Your task to perform on an android device: Go to accessibility settings Image 0: 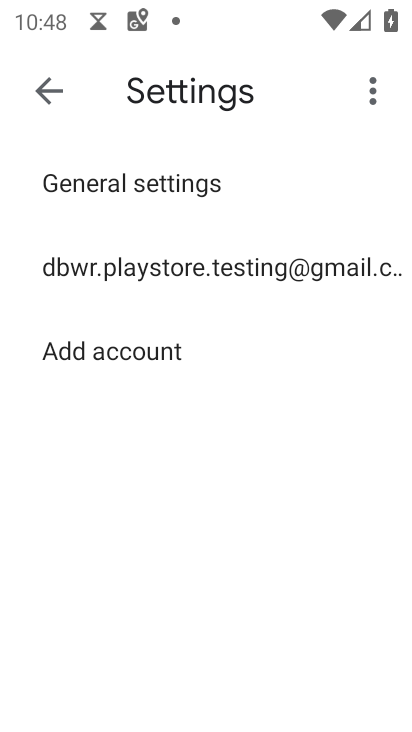
Step 0: press home button
Your task to perform on an android device: Go to accessibility settings Image 1: 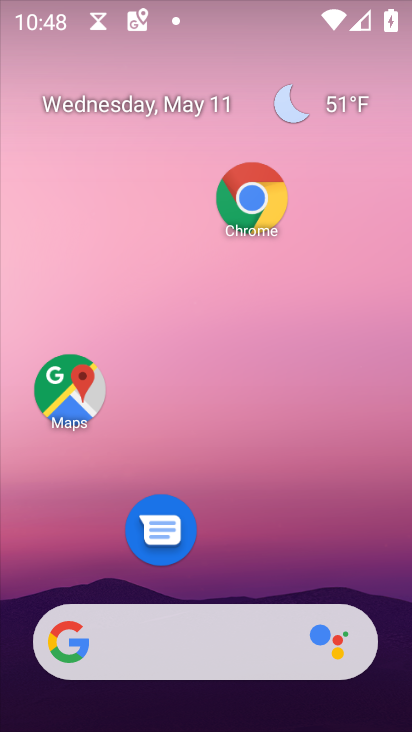
Step 1: drag from (275, 565) to (187, 116)
Your task to perform on an android device: Go to accessibility settings Image 2: 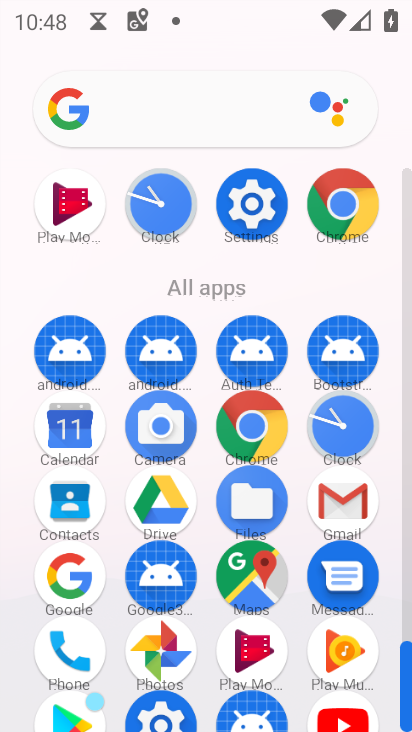
Step 2: click (257, 188)
Your task to perform on an android device: Go to accessibility settings Image 3: 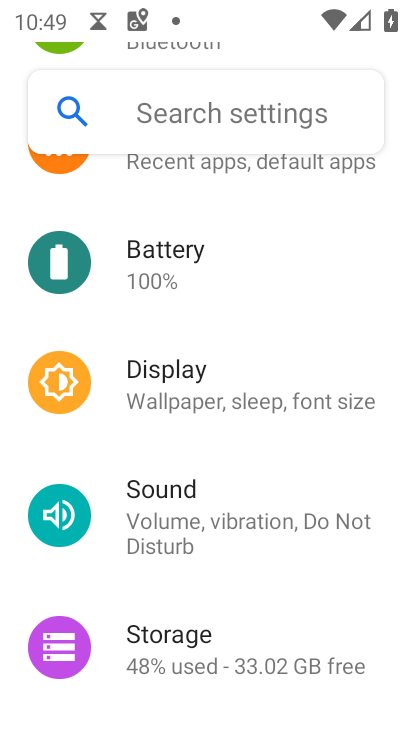
Step 3: drag from (250, 588) to (233, 177)
Your task to perform on an android device: Go to accessibility settings Image 4: 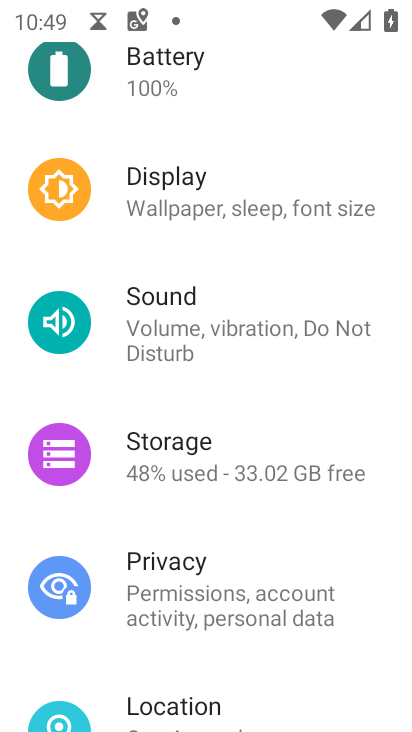
Step 4: drag from (179, 570) to (212, 193)
Your task to perform on an android device: Go to accessibility settings Image 5: 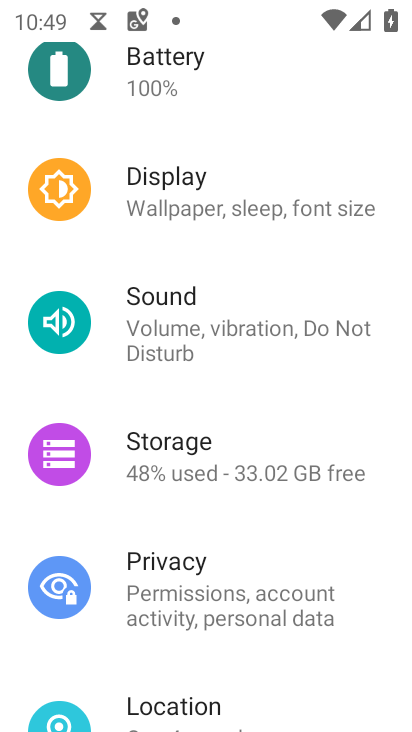
Step 5: drag from (216, 499) to (232, 413)
Your task to perform on an android device: Go to accessibility settings Image 6: 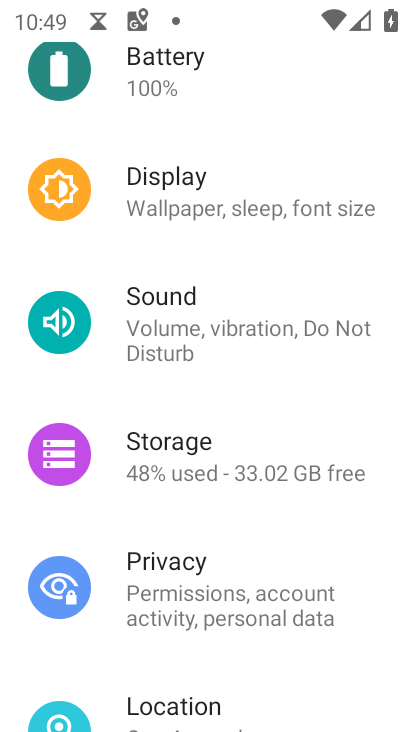
Step 6: drag from (185, 397) to (185, 165)
Your task to perform on an android device: Go to accessibility settings Image 7: 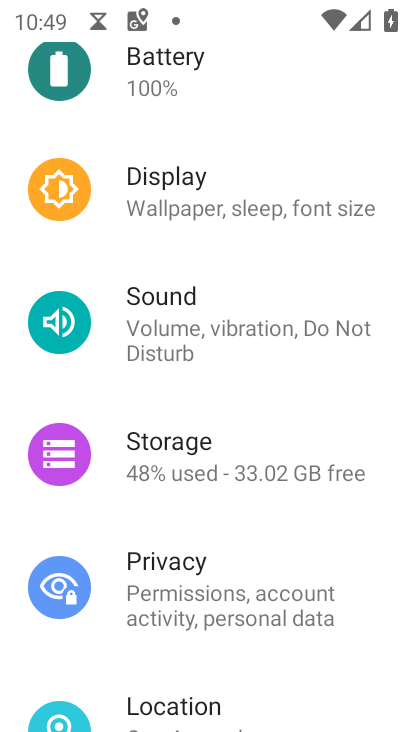
Step 7: drag from (242, 663) to (248, 252)
Your task to perform on an android device: Go to accessibility settings Image 8: 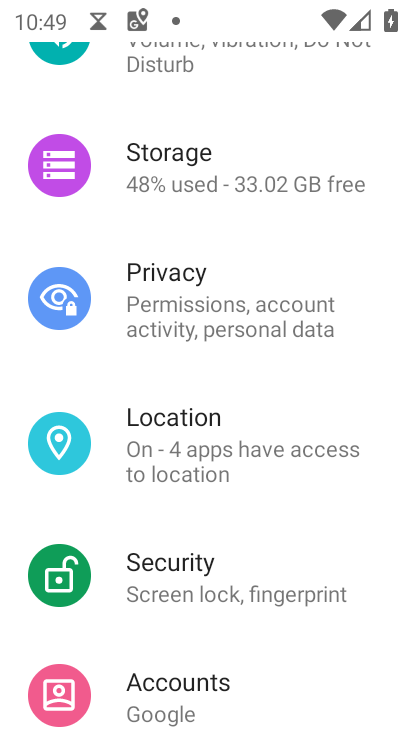
Step 8: drag from (208, 628) to (267, 359)
Your task to perform on an android device: Go to accessibility settings Image 9: 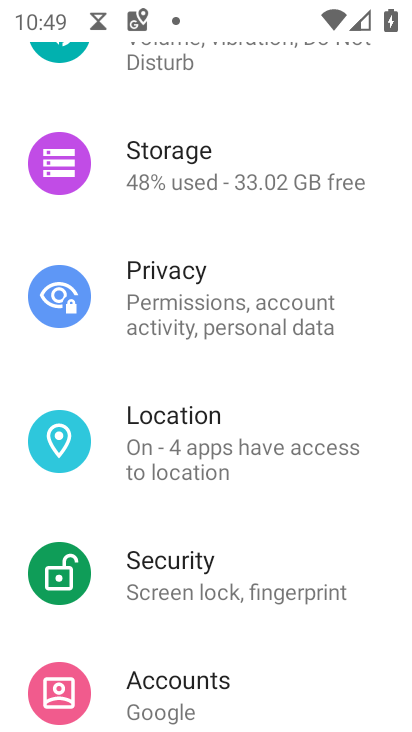
Step 9: click (289, 334)
Your task to perform on an android device: Go to accessibility settings Image 10: 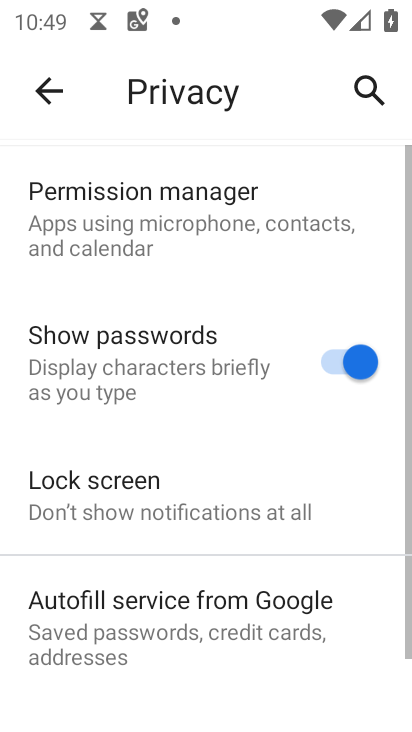
Step 10: drag from (217, 513) to (234, 240)
Your task to perform on an android device: Go to accessibility settings Image 11: 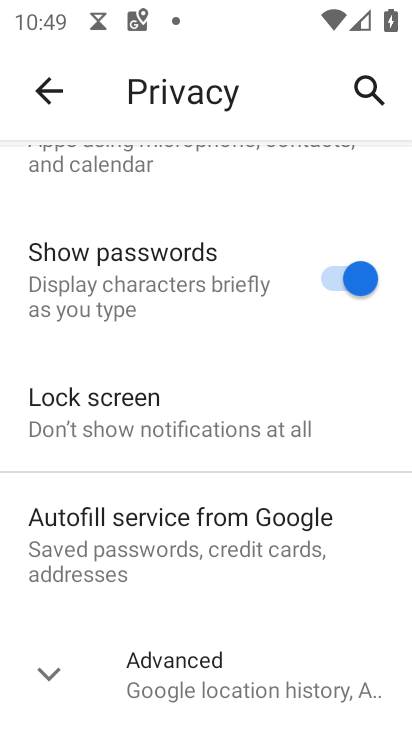
Step 11: click (36, 89)
Your task to perform on an android device: Go to accessibility settings Image 12: 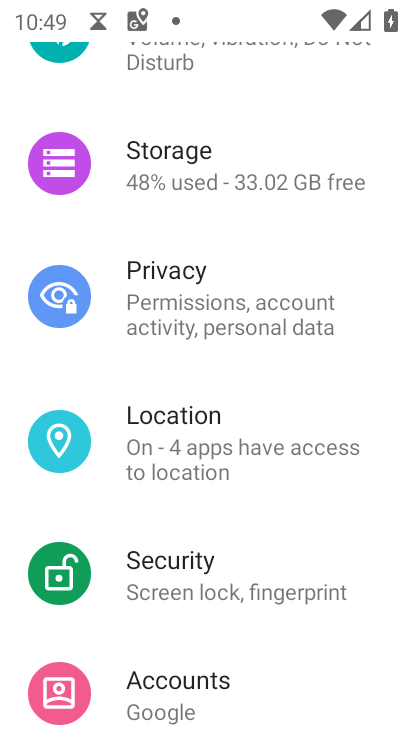
Step 12: drag from (264, 531) to (289, 254)
Your task to perform on an android device: Go to accessibility settings Image 13: 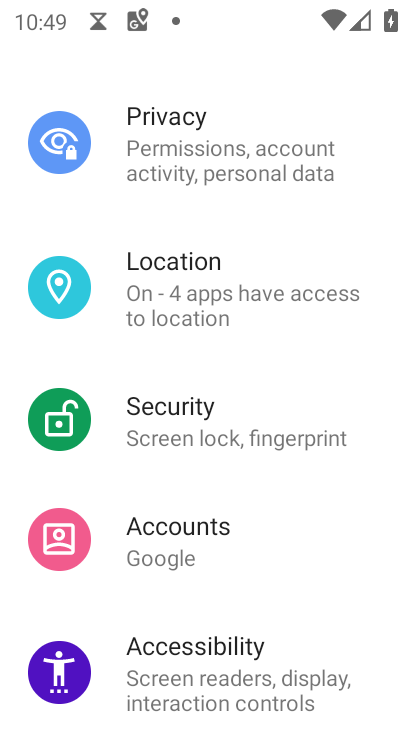
Step 13: click (217, 671)
Your task to perform on an android device: Go to accessibility settings Image 14: 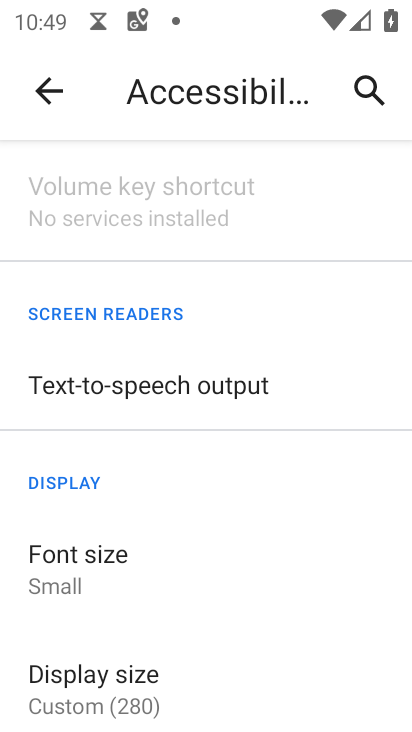
Step 14: task complete